Your task to perform on an android device: turn smart compose on in the gmail app Image 0: 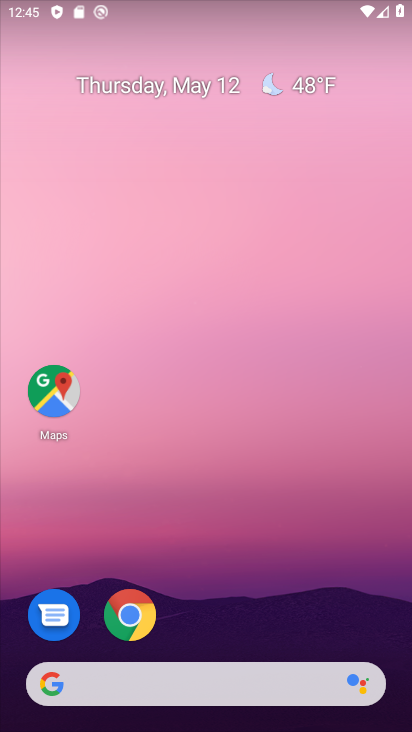
Step 0: drag from (348, 672) to (313, 13)
Your task to perform on an android device: turn smart compose on in the gmail app Image 1: 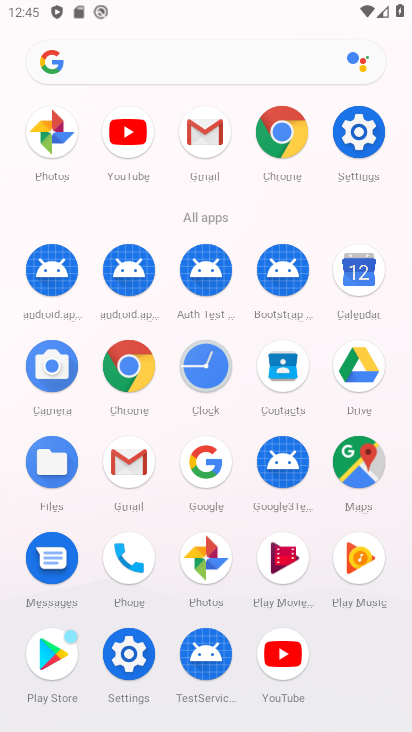
Step 1: click (128, 477)
Your task to perform on an android device: turn smart compose on in the gmail app Image 2: 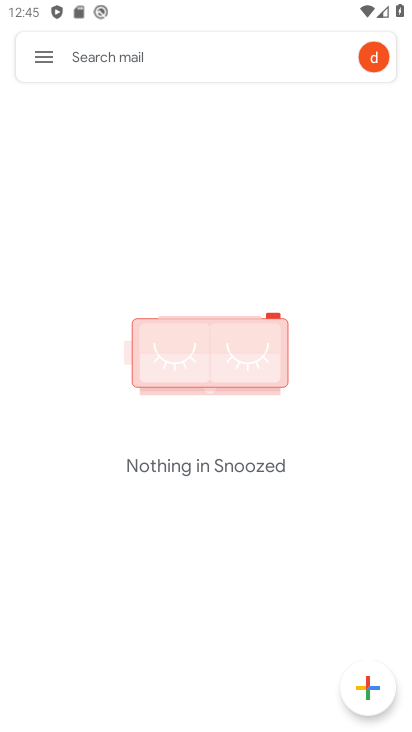
Step 2: click (54, 58)
Your task to perform on an android device: turn smart compose on in the gmail app Image 3: 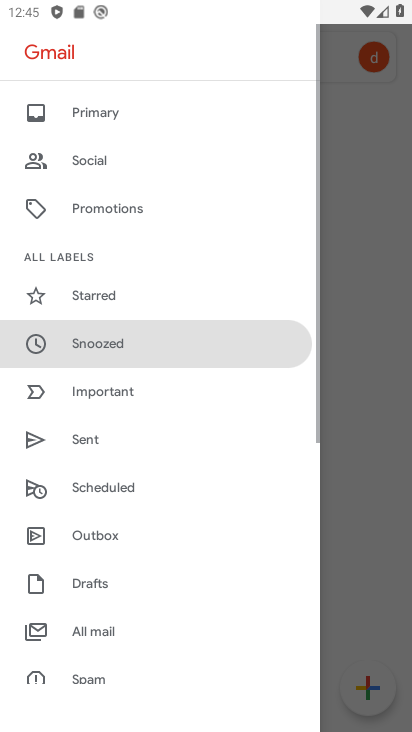
Step 3: drag from (236, 626) to (236, 68)
Your task to perform on an android device: turn smart compose on in the gmail app Image 4: 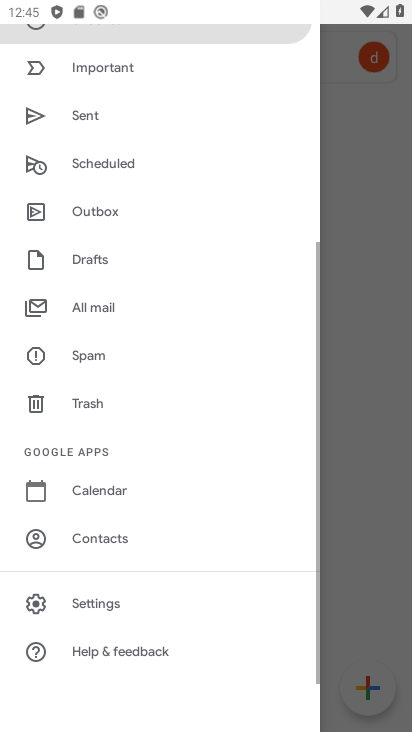
Step 4: click (125, 596)
Your task to perform on an android device: turn smart compose on in the gmail app Image 5: 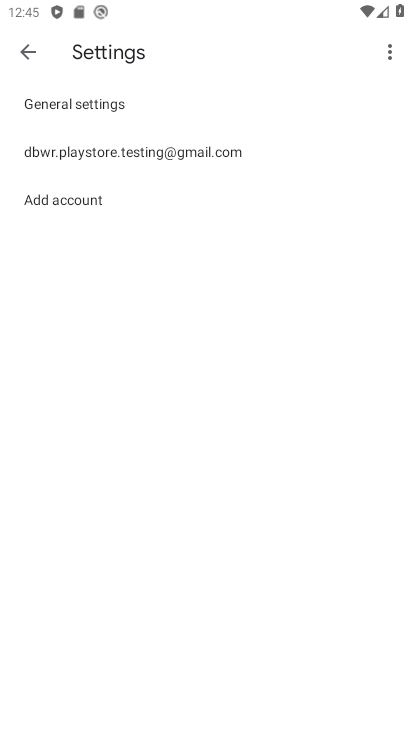
Step 5: click (172, 154)
Your task to perform on an android device: turn smart compose on in the gmail app Image 6: 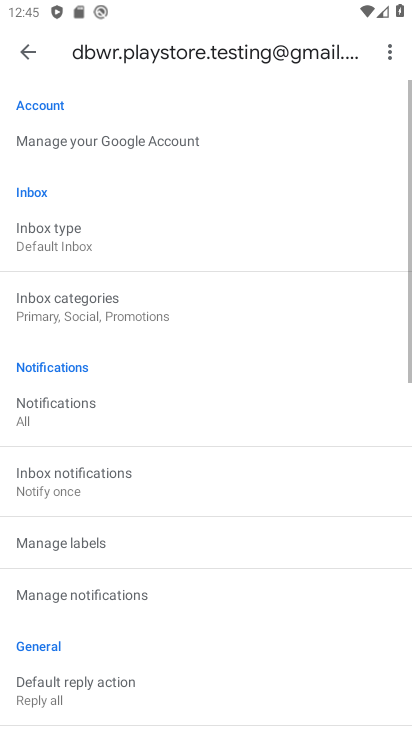
Step 6: task complete